Your task to perform on an android device: Turn on the flashlight Image 0: 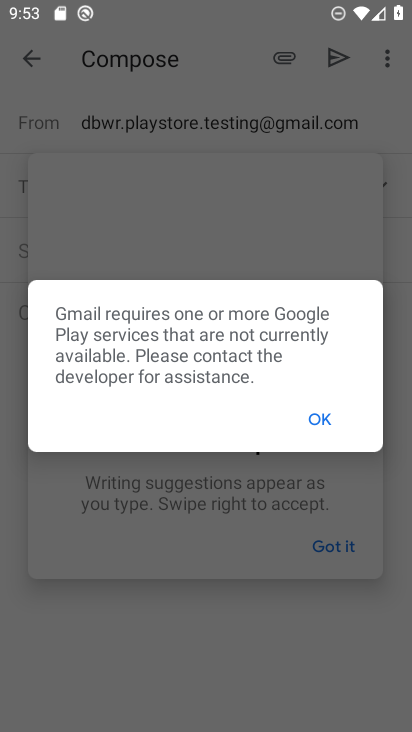
Step 0: press home button
Your task to perform on an android device: Turn on the flashlight Image 1: 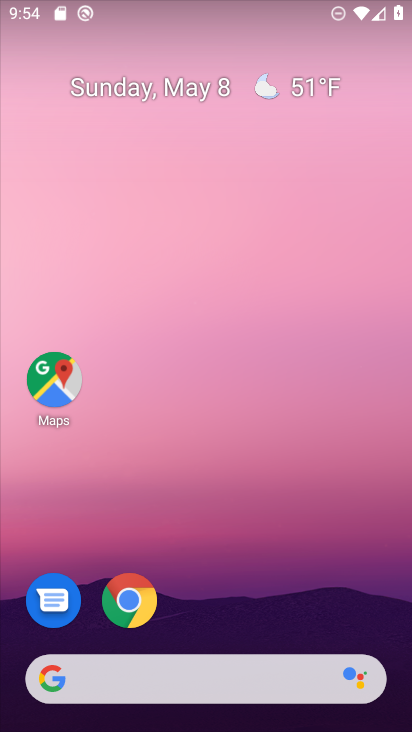
Step 1: task complete